Your task to perform on an android device: set the timer Image 0: 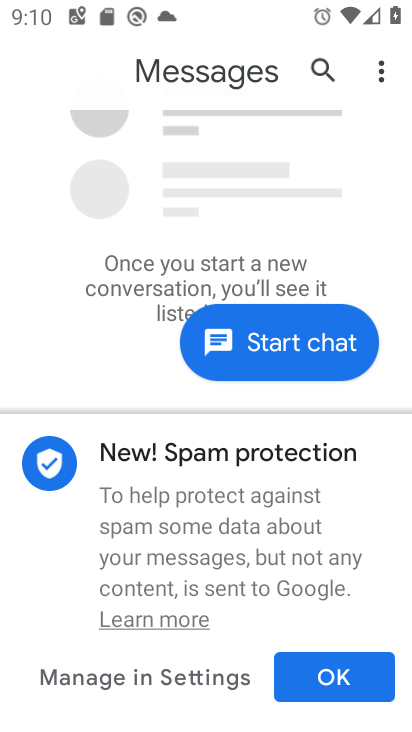
Step 0: press home button
Your task to perform on an android device: set the timer Image 1: 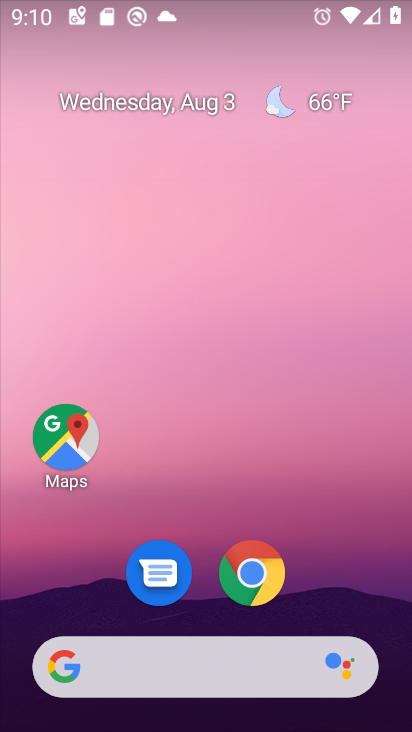
Step 1: drag from (351, 630) to (364, 0)
Your task to perform on an android device: set the timer Image 2: 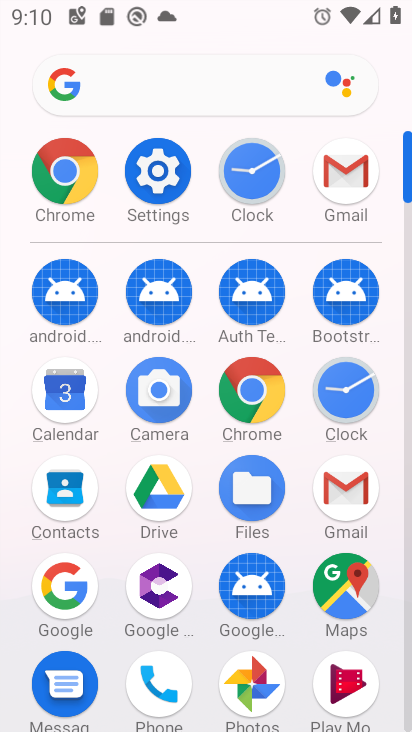
Step 2: click (340, 399)
Your task to perform on an android device: set the timer Image 3: 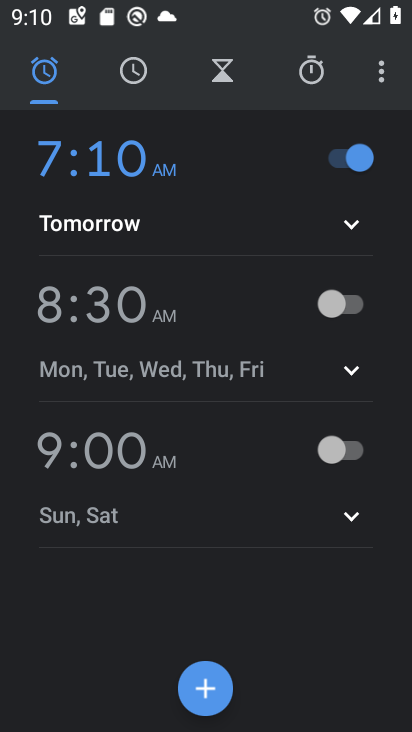
Step 3: click (213, 74)
Your task to perform on an android device: set the timer Image 4: 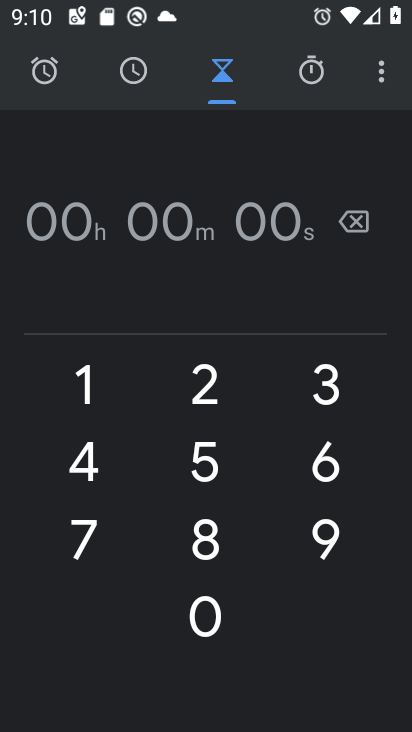
Step 4: click (209, 458)
Your task to perform on an android device: set the timer Image 5: 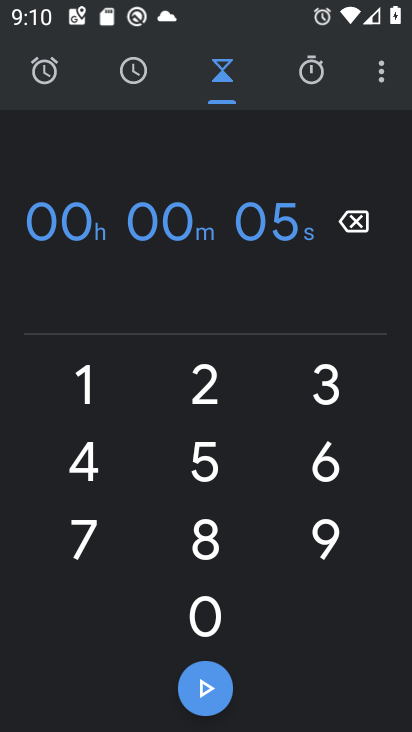
Step 5: click (223, 627)
Your task to perform on an android device: set the timer Image 6: 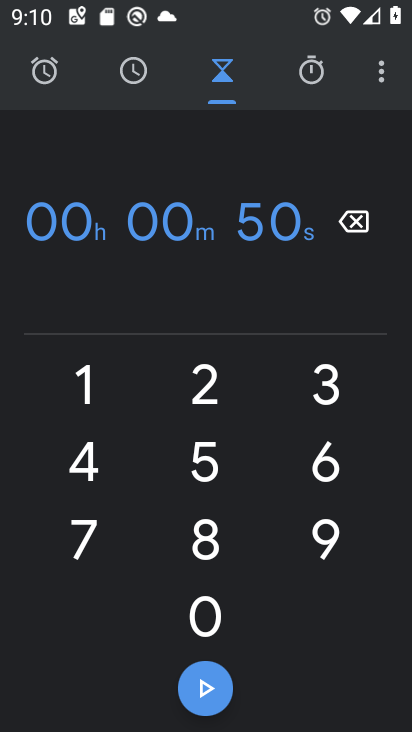
Step 6: click (215, 695)
Your task to perform on an android device: set the timer Image 7: 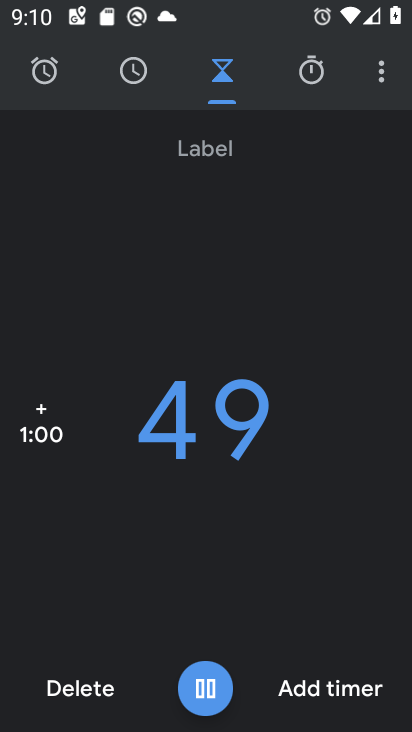
Step 7: task complete